Your task to perform on an android device: What's the weather today? Image 0: 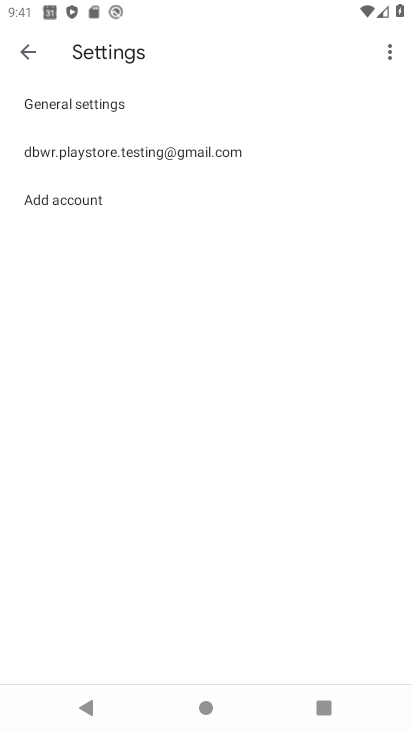
Step 0: press home button
Your task to perform on an android device: What's the weather today? Image 1: 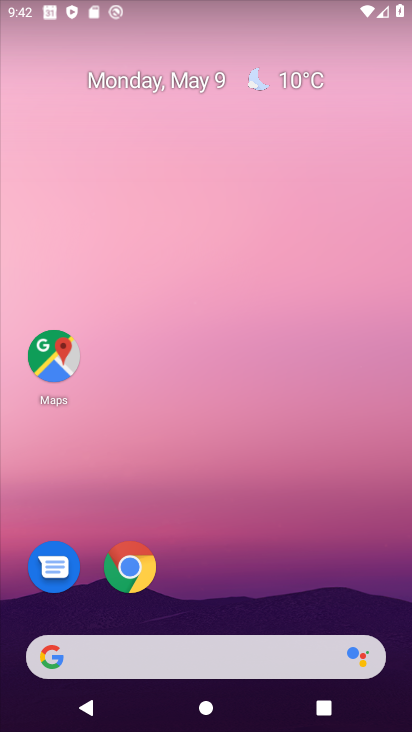
Step 1: click (290, 78)
Your task to perform on an android device: What's the weather today? Image 2: 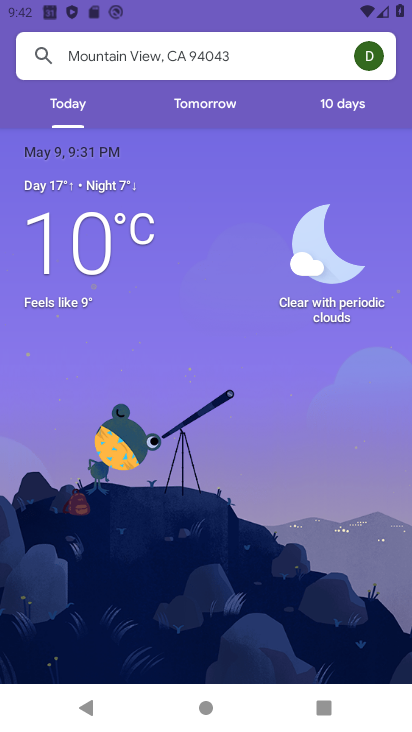
Step 2: task complete